Your task to perform on an android device: turn off picture-in-picture Image 0: 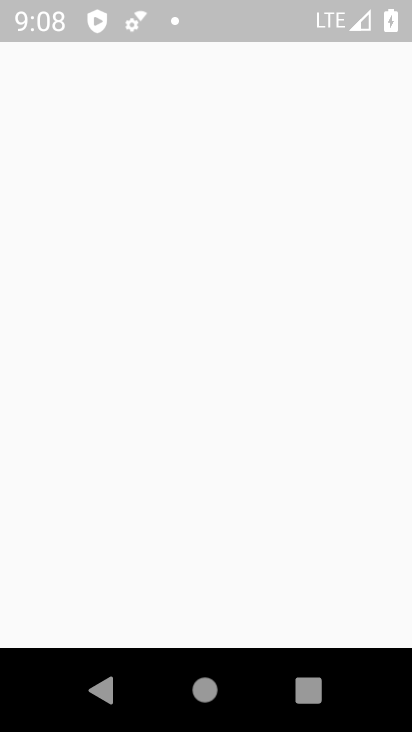
Step 0: press home button
Your task to perform on an android device: turn off picture-in-picture Image 1: 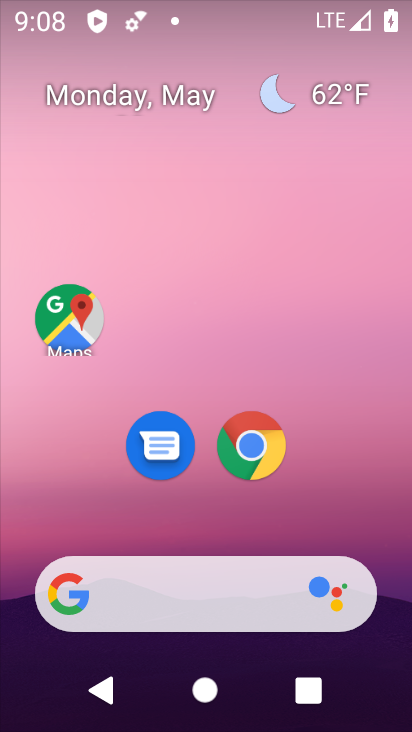
Step 1: drag from (402, 595) to (272, 53)
Your task to perform on an android device: turn off picture-in-picture Image 2: 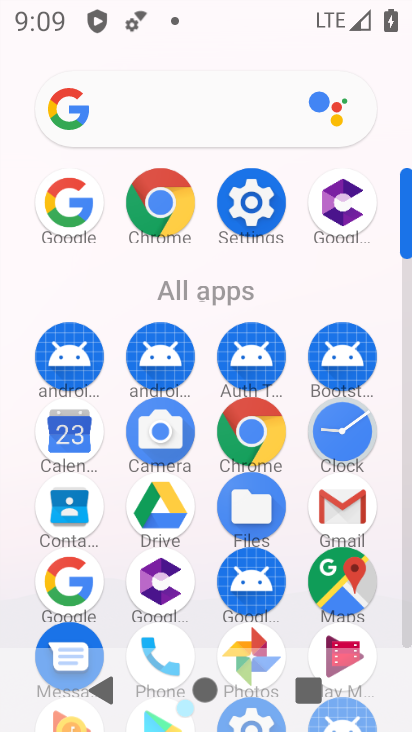
Step 2: click (171, 176)
Your task to perform on an android device: turn off picture-in-picture Image 3: 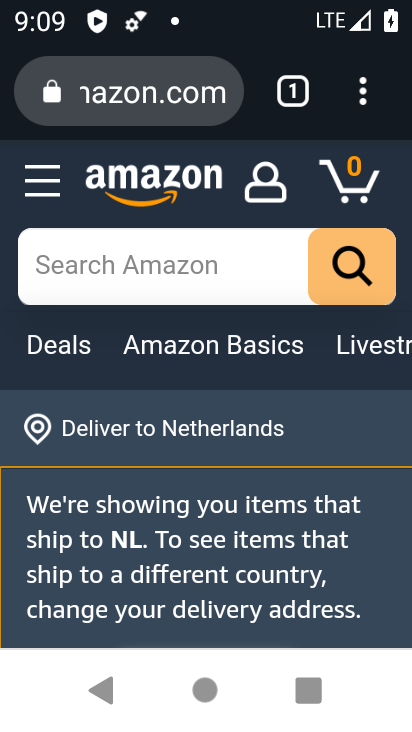
Step 3: task complete